Your task to perform on an android device: Set the phone to "Do not disturb". Image 0: 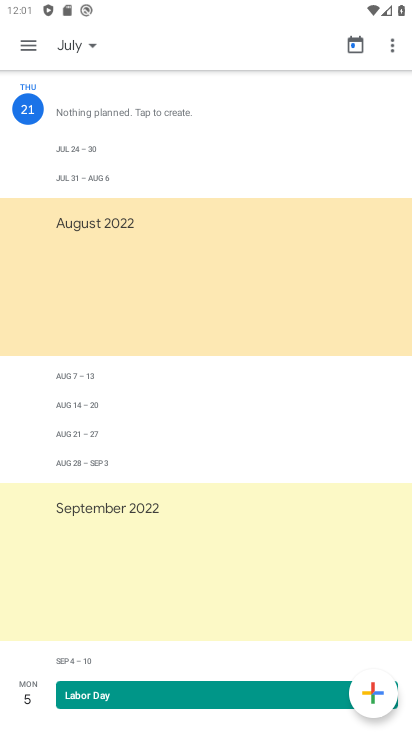
Step 0: press home button
Your task to perform on an android device: Set the phone to "Do not disturb". Image 1: 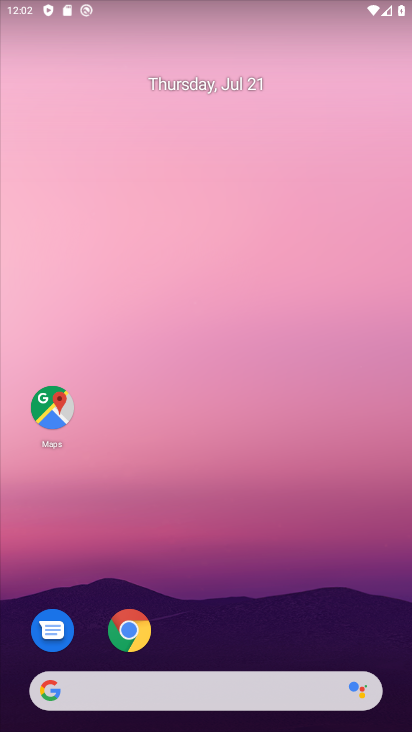
Step 1: drag from (398, 656) to (397, 162)
Your task to perform on an android device: Set the phone to "Do not disturb". Image 2: 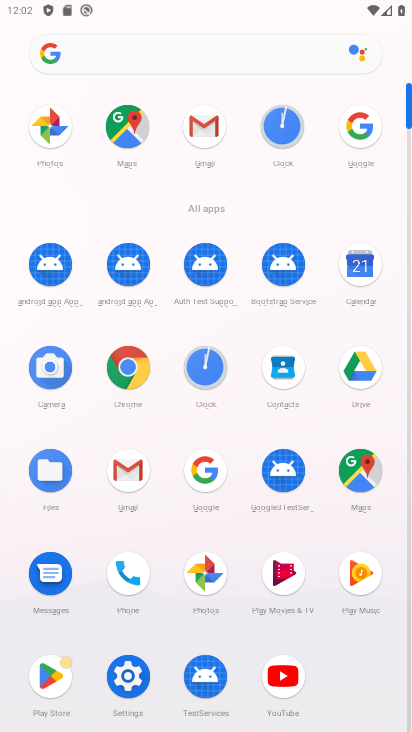
Step 2: click (141, 672)
Your task to perform on an android device: Set the phone to "Do not disturb". Image 3: 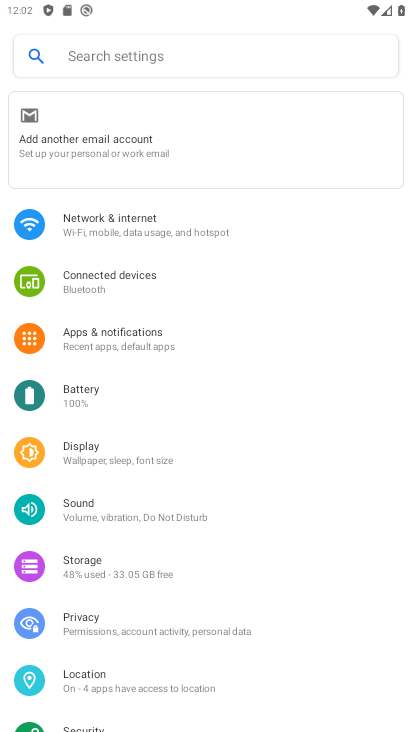
Step 3: click (84, 511)
Your task to perform on an android device: Set the phone to "Do not disturb". Image 4: 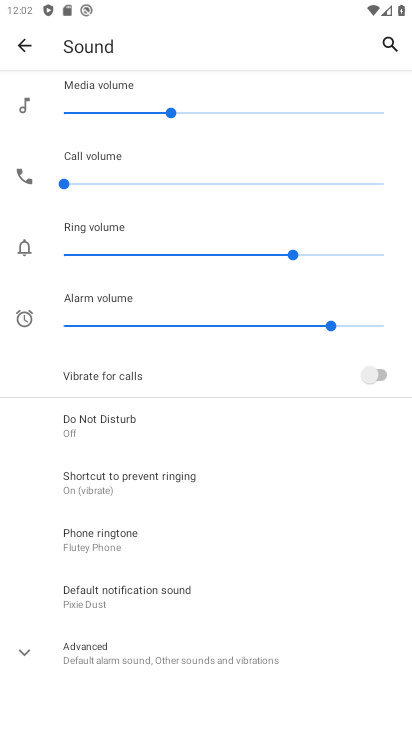
Step 4: click (88, 427)
Your task to perform on an android device: Set the phone to "Do not disturb". Image 5: 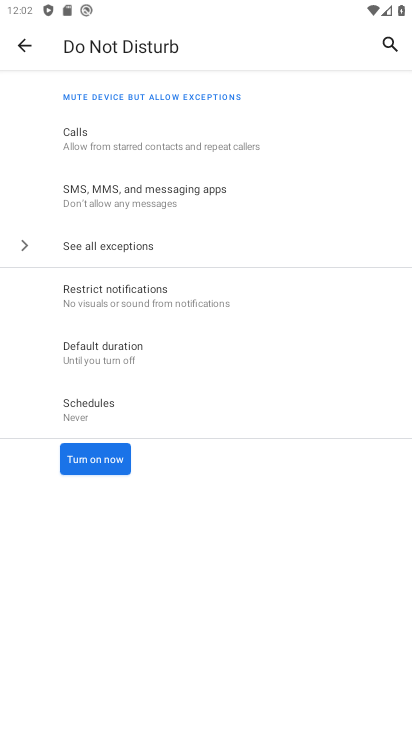
Step 5: click (108, 462)
Your task to perform on an android device: Set the phone to "Do not disturb". Image 6: 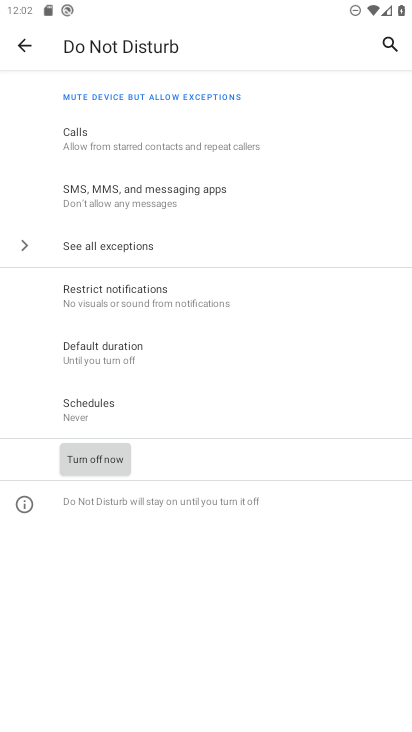
Step 6: task complete